Your task to perform on an android device: turn vacation reply on in the gmail app Image 0: 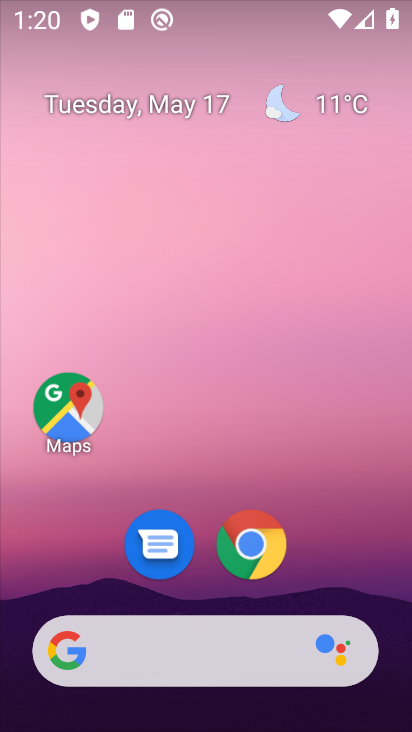
Step 0: drag from (337, 571) to (289, 6)
Your task to perform on an android device: turn vacation reply on in the gmail app Image 1: 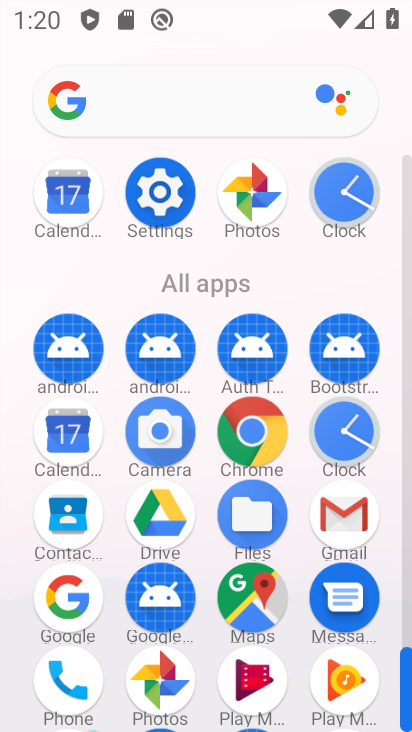
Step 1: click (364, 495)
Your task to perform on an android device: turn vacation reply on in the gmail app Image 2: 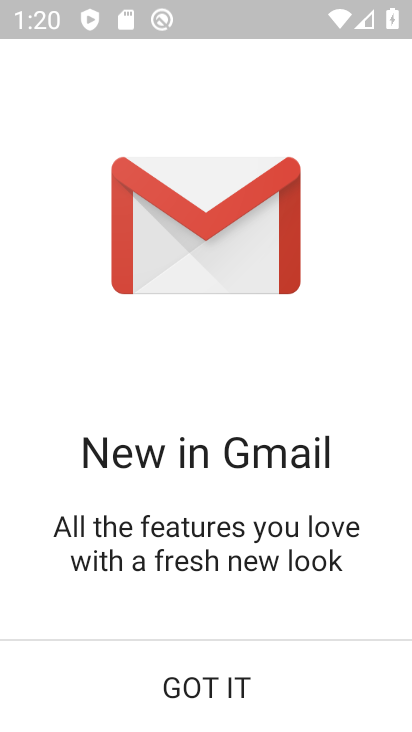
Step 2: click (251, 696)
Your task to perform on an android device: turn vacation reply on in the gmail app Image 3: 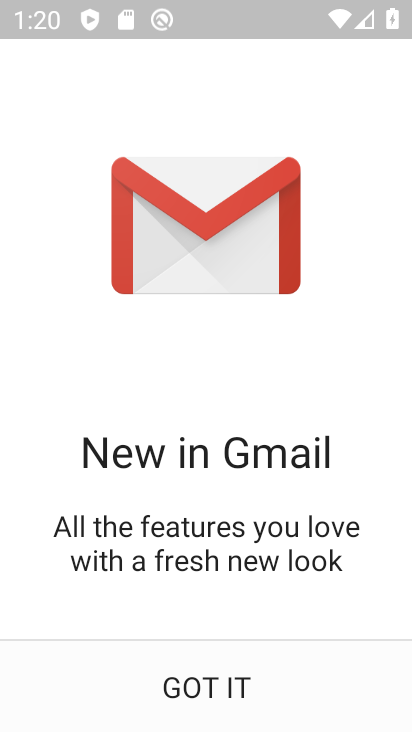
Step 3: click (251, 696)
Your task to perform on an android device: turn vacation reply on in the gmail app Image 4: 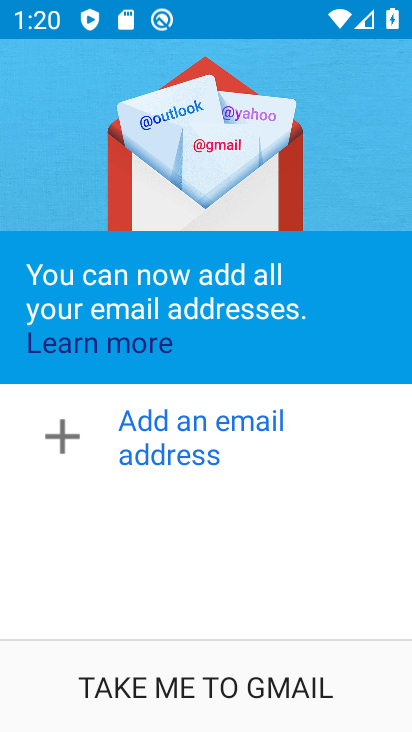
Step 4: click (251, 696)
Your task to perform on an android device: turn vacation reply on in the gmail app Image 5: 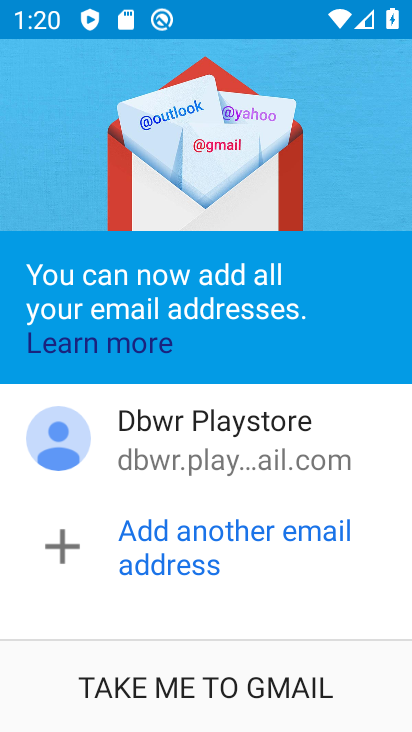
Step 5: click (227, 664)
Your task to perform on an android device: turn vacation reply on in the gmail app Image 6: 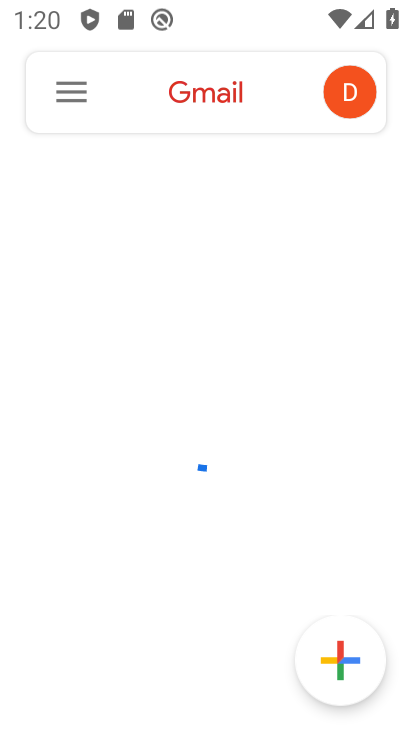
Step 6: click (69, 100)
Your task to perform on an android device: turn vacation reply on in the gmail app Image 7: 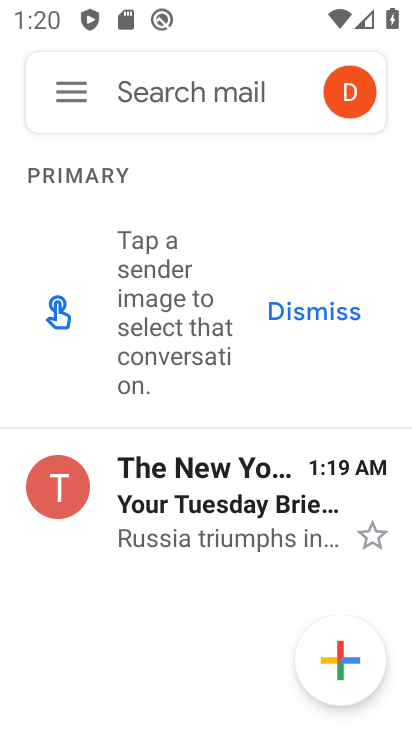
Step 7: click (69, 100)
Your task to perform on an android device: turn vacation reply on in the gmail app Image 8: 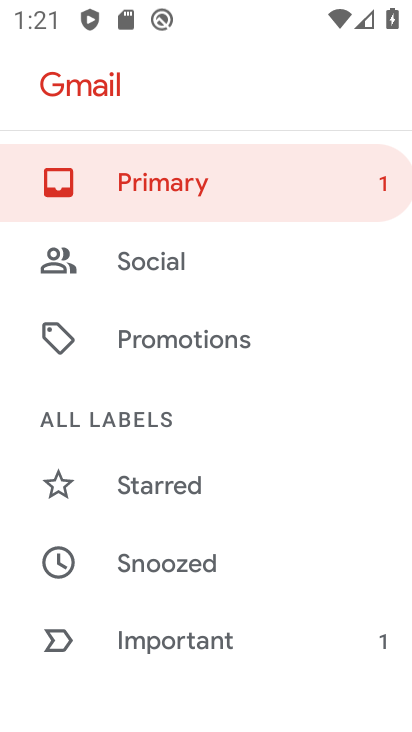
Step 8: drag from (178, 627) to (249, 103)
Your task to perform on an android device: turn vacation reply on in the gmail app Image 9: 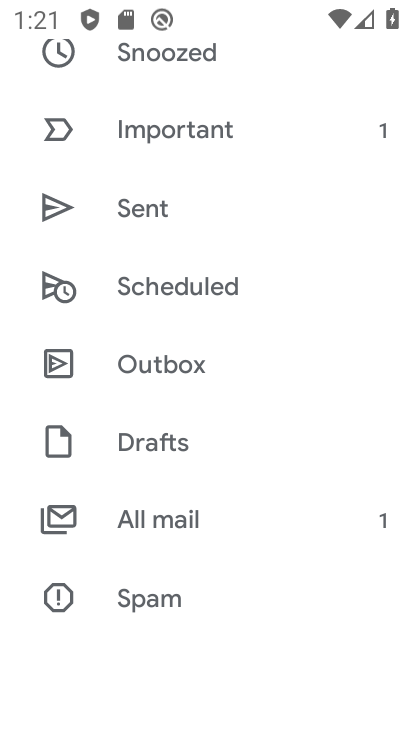
Step 9: drag from (320, 534) to (305, 88)
Your task to perform on an android device: turn vacation reply on in the gmail app Image 10: 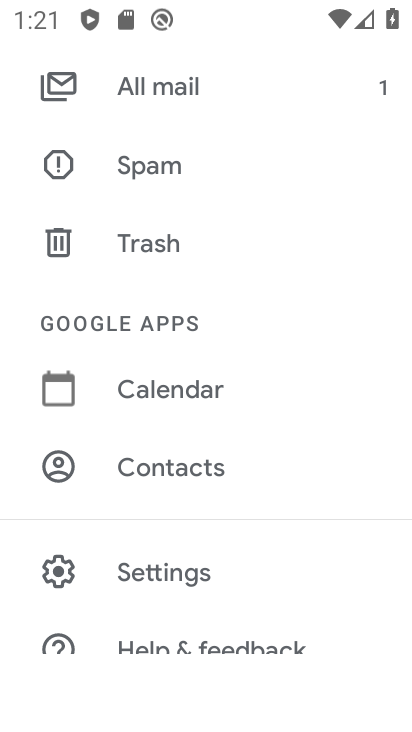
Step 10: drag from (318, 507) to (289, 119)
Your task to perform on an android device: turn vacation reply on in the gmail app Image 11: 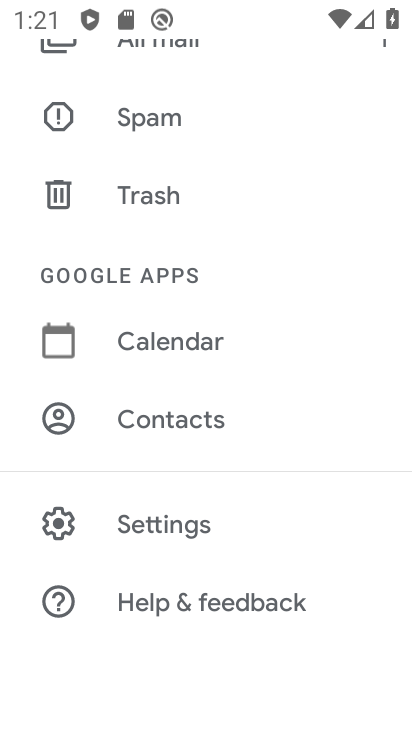
Step 11: click (226, 539)
Your task to perform on an android device: turn vacation reply on in the gmail app Image 12: 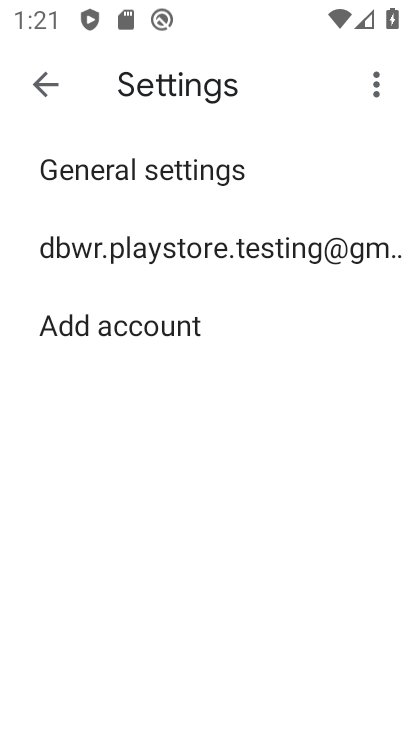
Step 12: click (252, 227)
Your task to perform on an android device: turn vacation reply on in the gmail app Image 13: 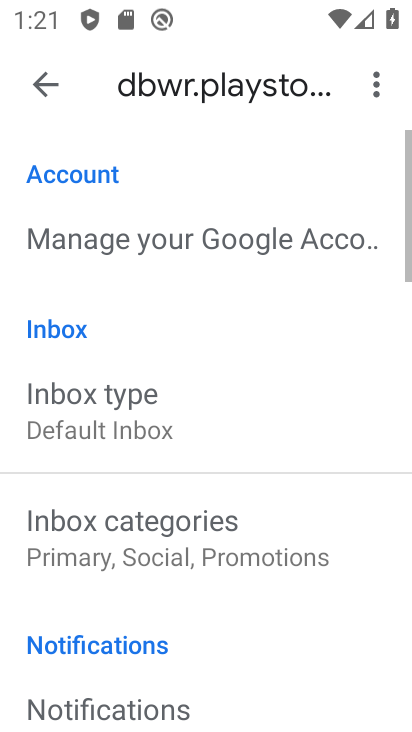
Step 13: drag from (302, 622) to (289, 337)
Your task to perform on an android device: turn vacation reply on in the gmail app Image 14: 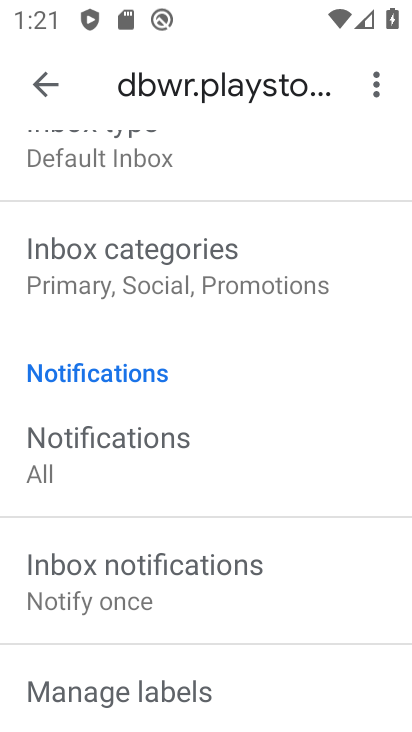
Step 14: drag from (350, 597) to (319, 224)
Your task to perform on an android device: turn vacation reply on in the gmail app Image 15: 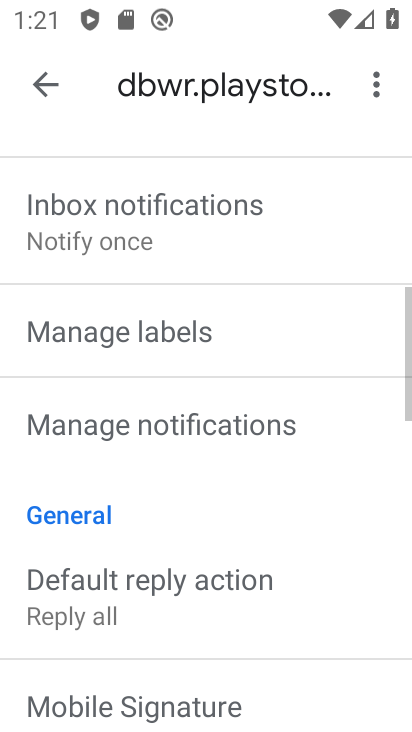
Step 15: drag from (325, 632) to (313, 277)
Your task to perform on an android device: turn vacation reply on in the gmail app Image 16: 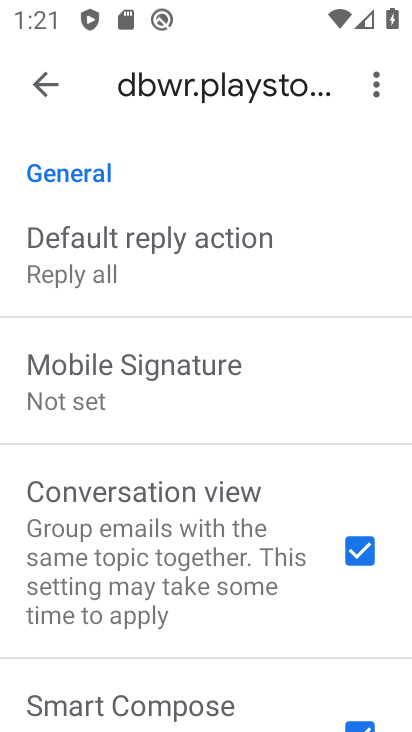
Step 16: drag from (308, 582) to (291, 222)
Your task to perform on an android device: turn vacation reply on in the gmail app Image 17: 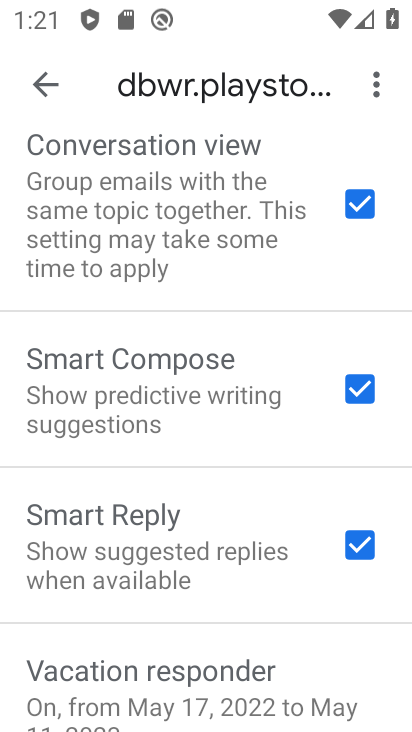
Step 17: click (119, 680)
Your task to perform on an android device: turn vacation reply on in the gmail app Image 18: 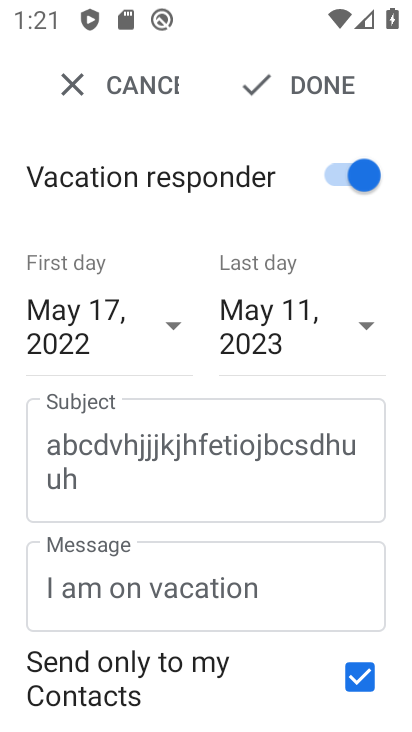
Step 18: click (343, 85)
Your task to perform on an android device: turn vacation reply on in the gmail app Image 19: 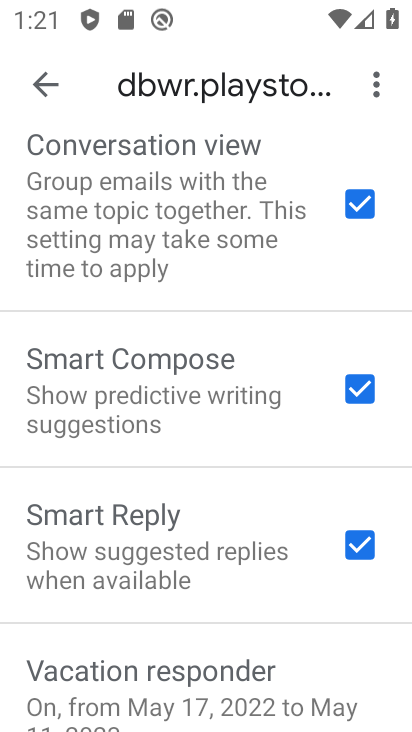
Step 19: task complete